Your task to perform on an android device: Show the shopping cart on amazon. Add "asus rog" to the cart on amazon Image 0: 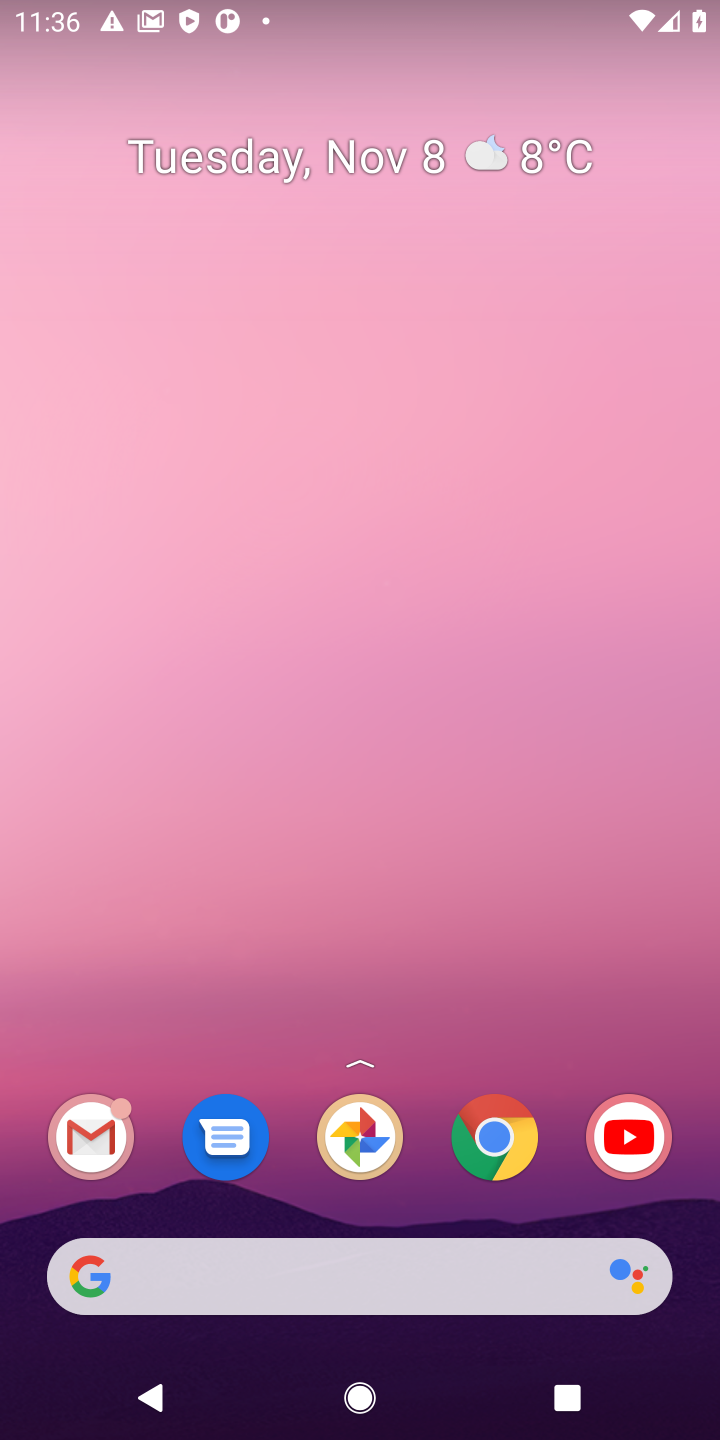
Step 0: click (512, 1132)
Your task to perform on an android device: Show the shopping cart on amazon. Add "asus rog" to the cart on amazon Image 1: 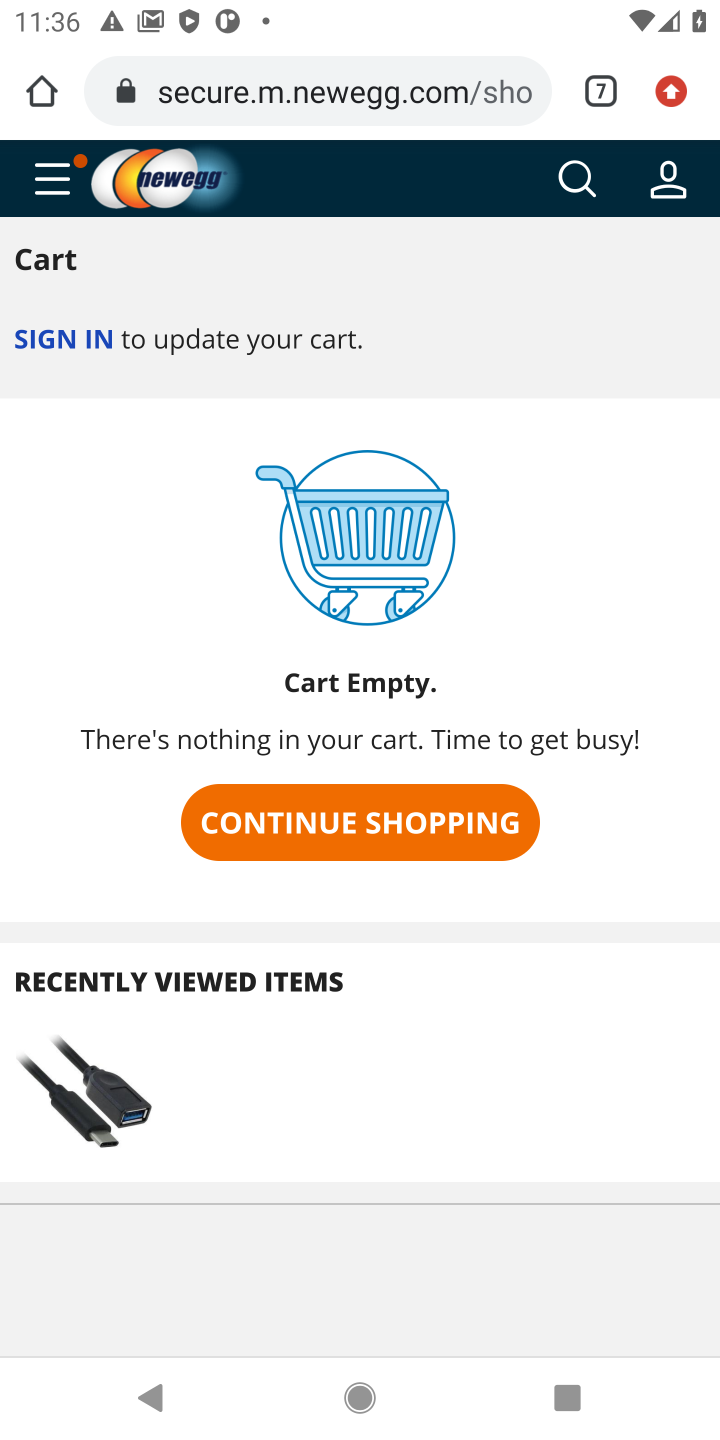
Step 1: click (595, 86)
Your task to perform on an android device: Show the shopping cart on amazon. Add "asus rog" to the cart on amazon Image 2: 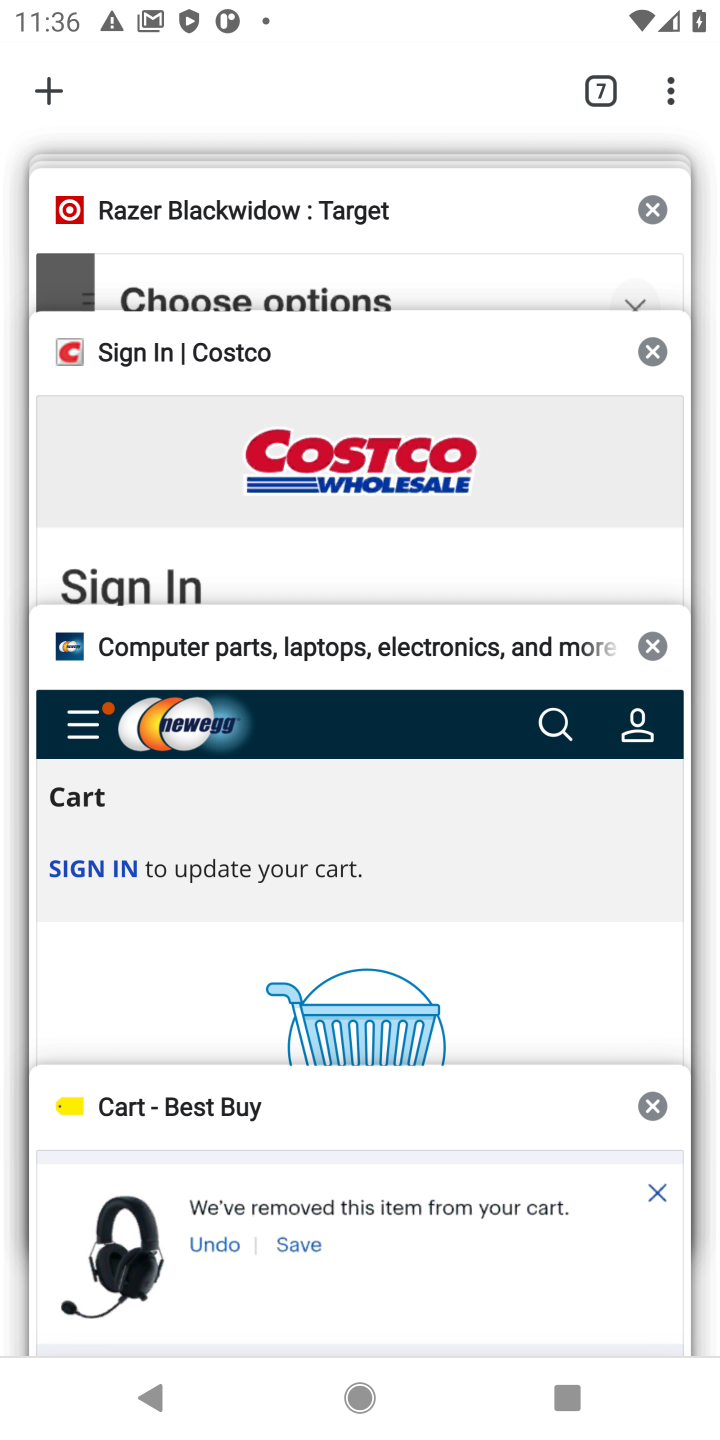
Step 2: drag from (484, 176) to (471, 299)
Your task to perform on an android device: Show the shopping cart on amazon. Add "asus rog" to the cart on amazon Image 3: 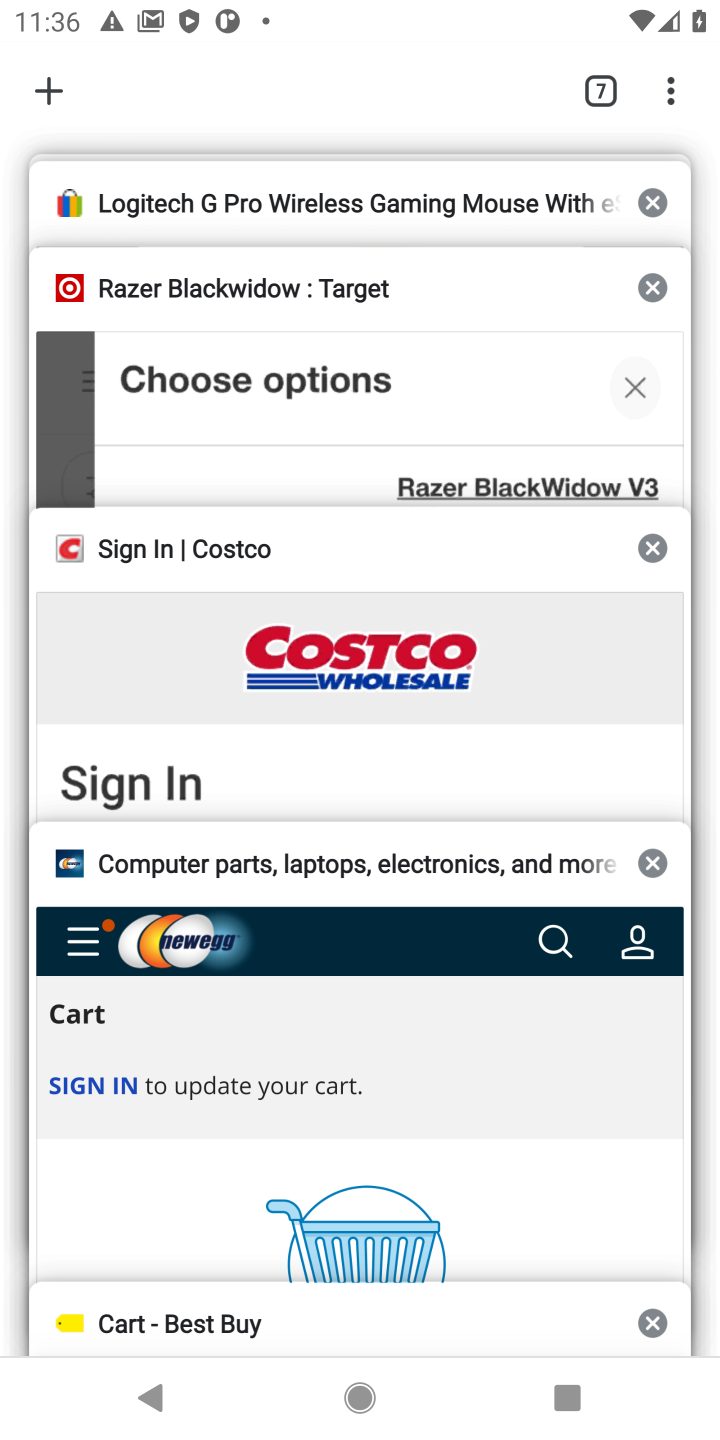
Step 3: drag from (434, 196) to (389, 478)
Your task to perform on an android device: Show the shopping cart on amazon. Add "asus rog" to the cart on amazon Image 4: 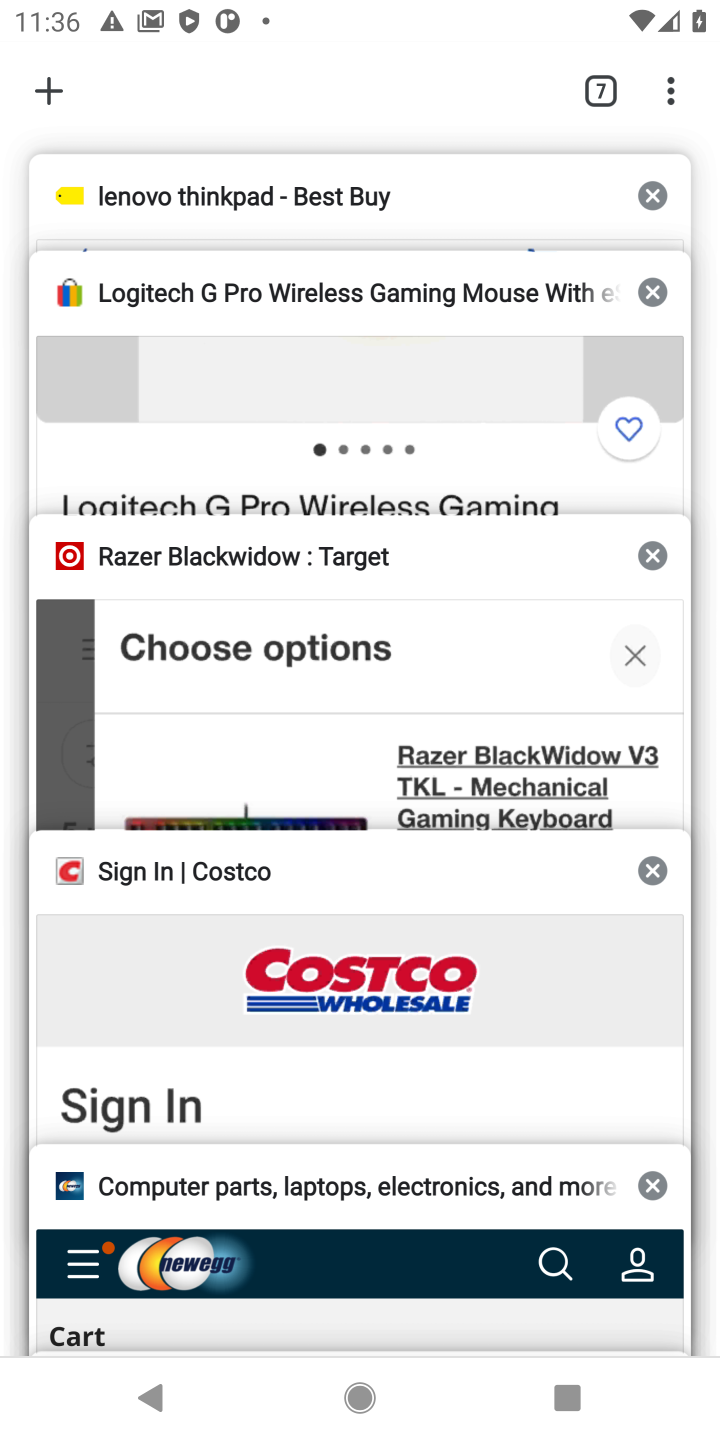
Step 4: click (41, 88)
Your task to perform on an android device: Show the shopping cart on amazon. Add "asus rog" to the cart on amazon Image 5: 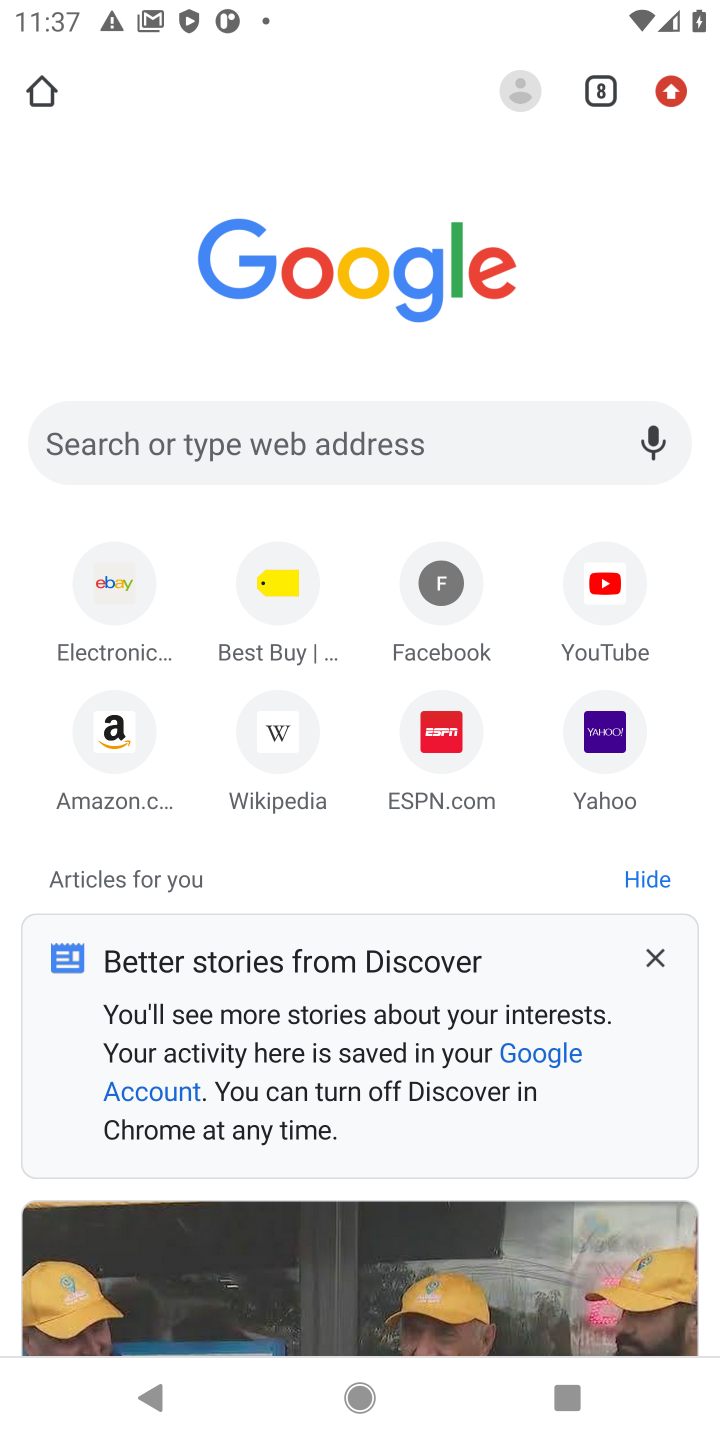
Step 5: click (111, 732)
Your task to perform on an android device: Show the shopping cart on amazon. Add "asus rog" to the cart on amazon Image 6: 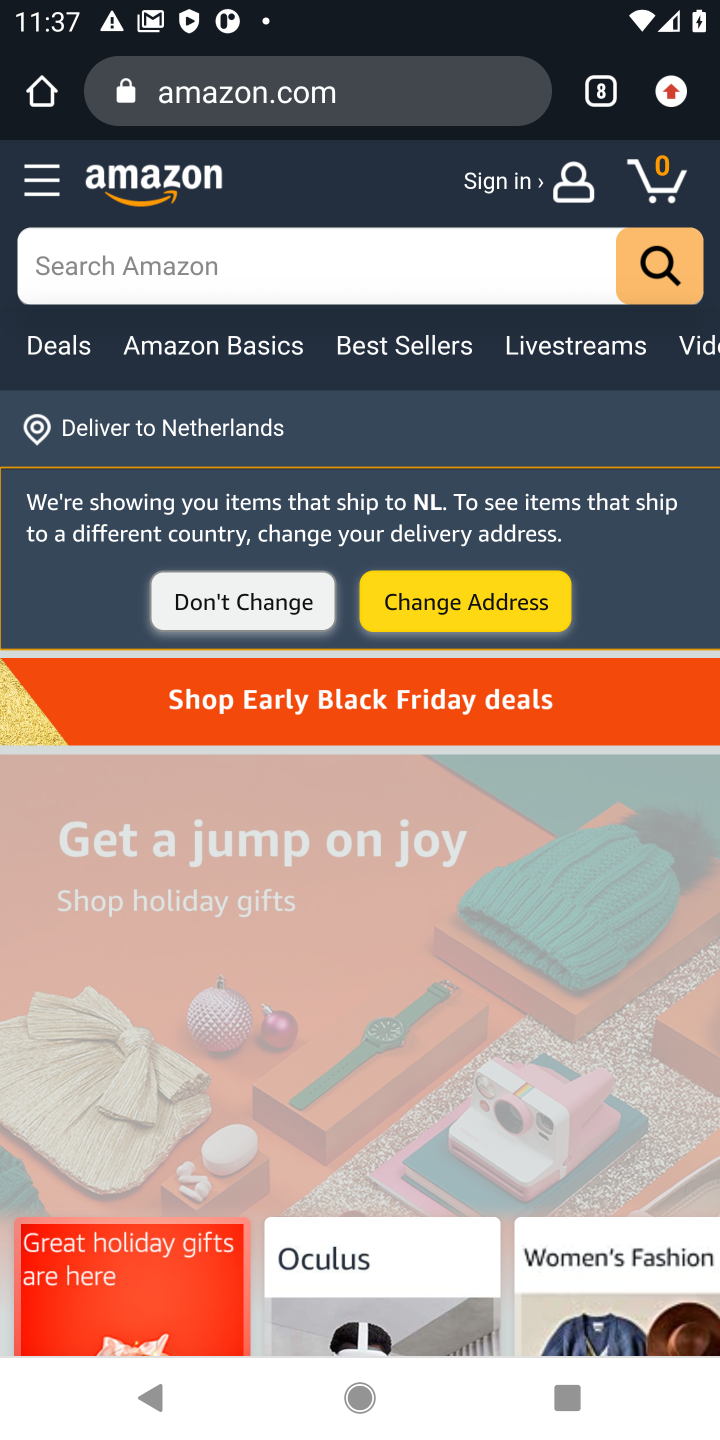
Step 6: click (213, 268)
Your task to perform on an android device: Show the shopping cart on amazon. Add "asus rog" to the cart on amazon Image 7: 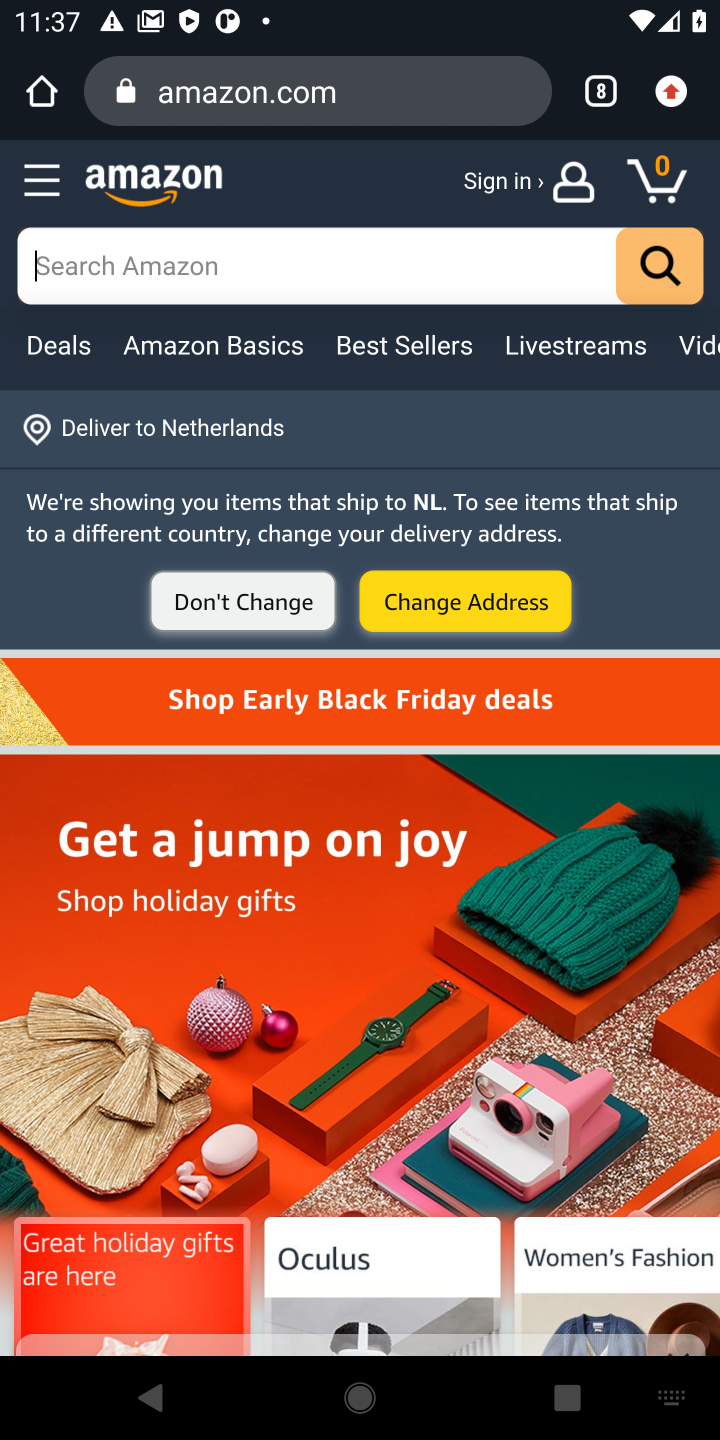
Step 7: type "asus rog"
Your task to perform on an android device: Show the shopping cart on amazon. Add "asus rog" to the cart on amazon Image 8: 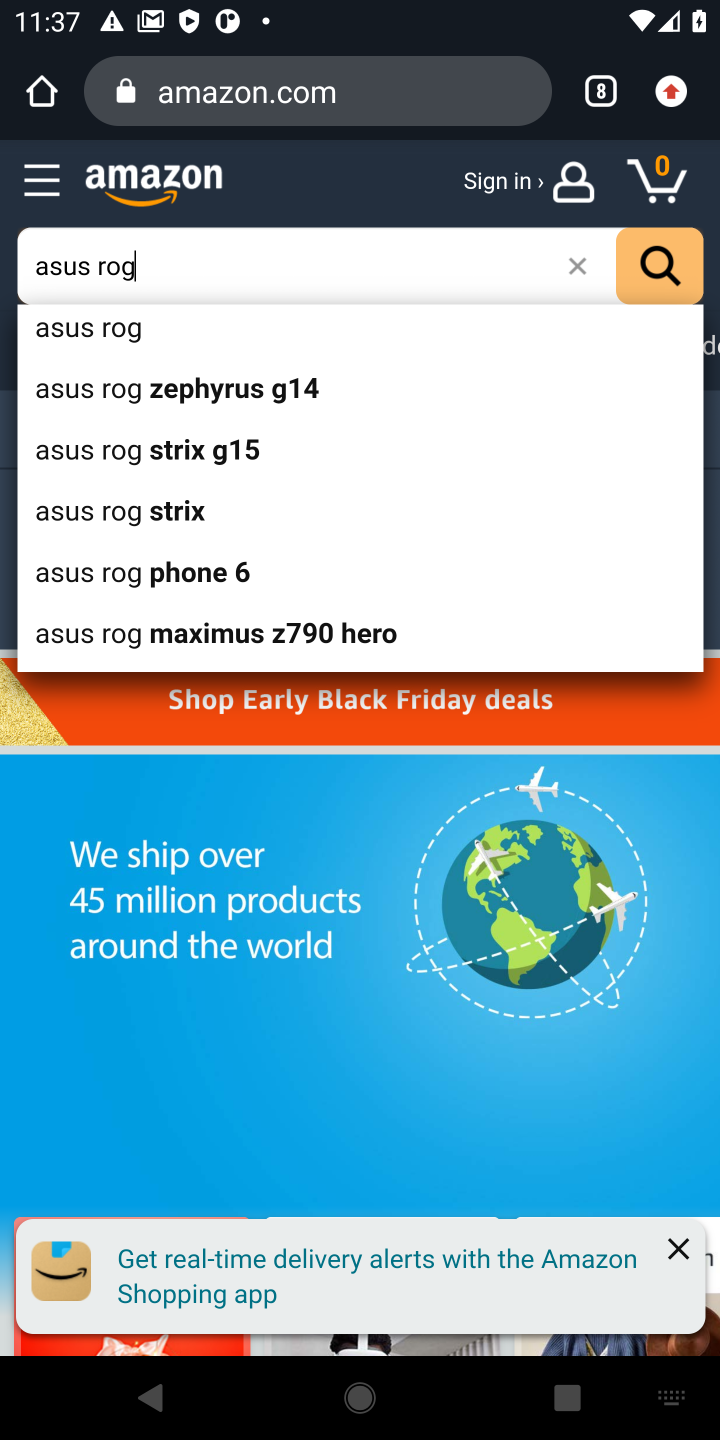
Step 8: click (124, 320)
Your task to perform on an android device: Show the shopping cart on amazon. Add "asus rog" to the cart on amazon Image 9: 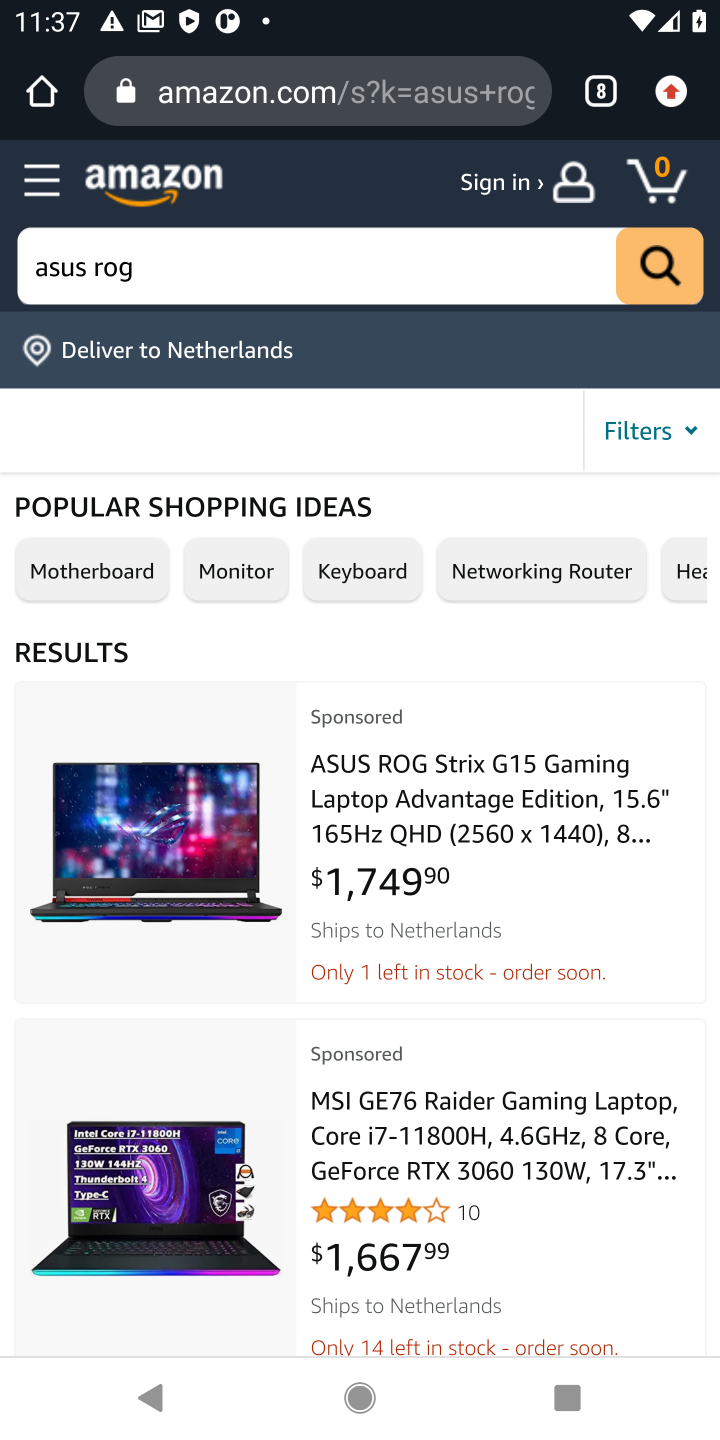
Step 9: click (416, 807)
Your task to perform on an android device: Show the shopping cart on amazon. Add "asus rog" to the cart on amazon Image 10: 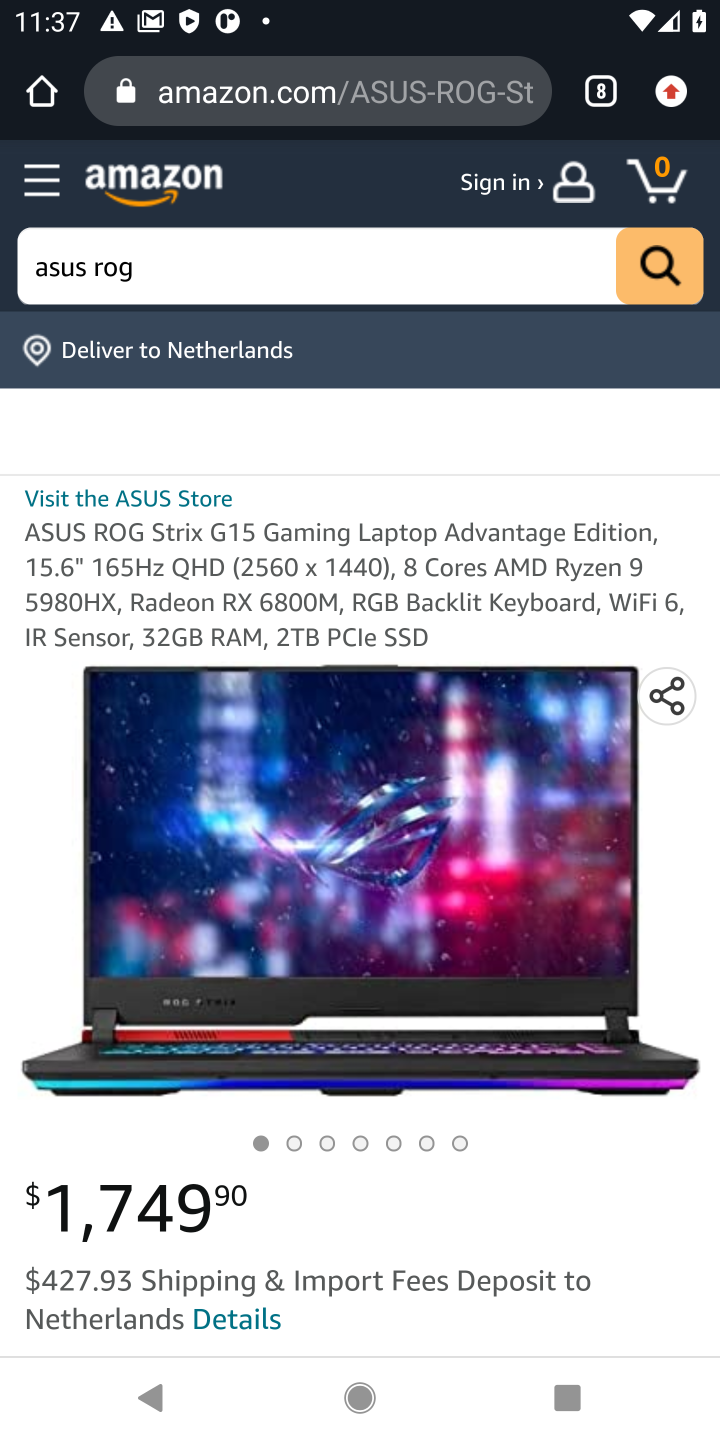
Step 10: drag from (401, 1249) to (524, 640)
Your task to perform on an android device: Show the shopping cart on amazon. Add "asus rog" to the cart on amazon Image 11: 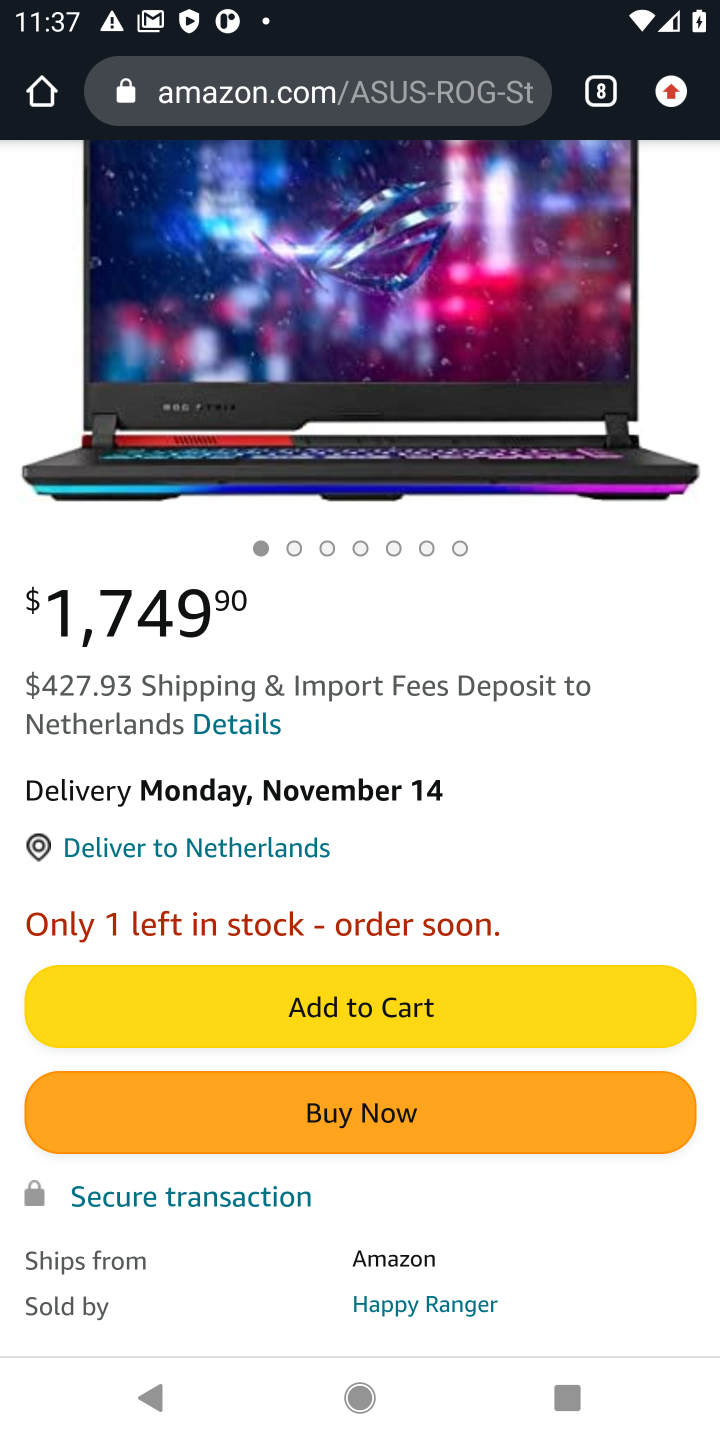
Step 11: click (435, 1003)
Your task to perform on an android device: Show the shopping cart on amazon. Add "asus rog" to the cart on amazon Image 12: 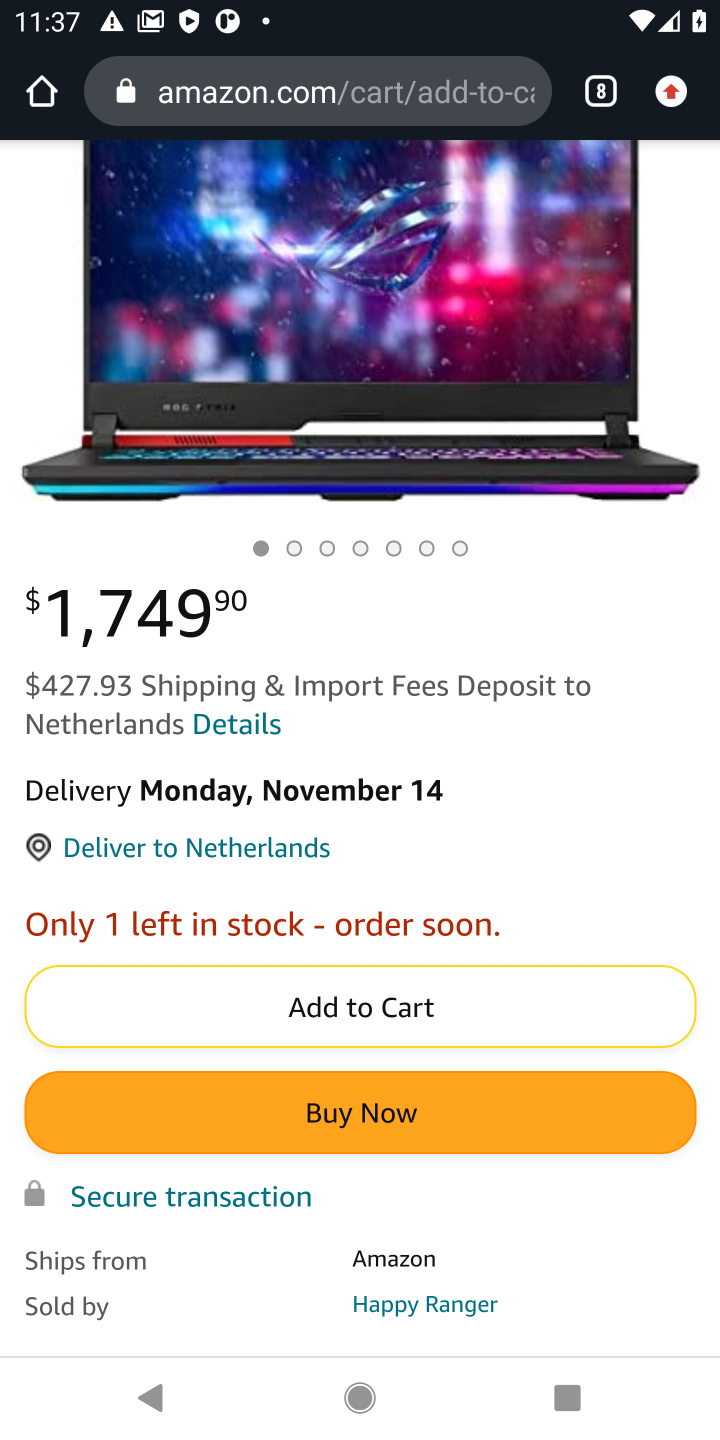
Step 12: task complete